Your task to perform on an android device: open app "Speedtest by Ookla" Image 0: 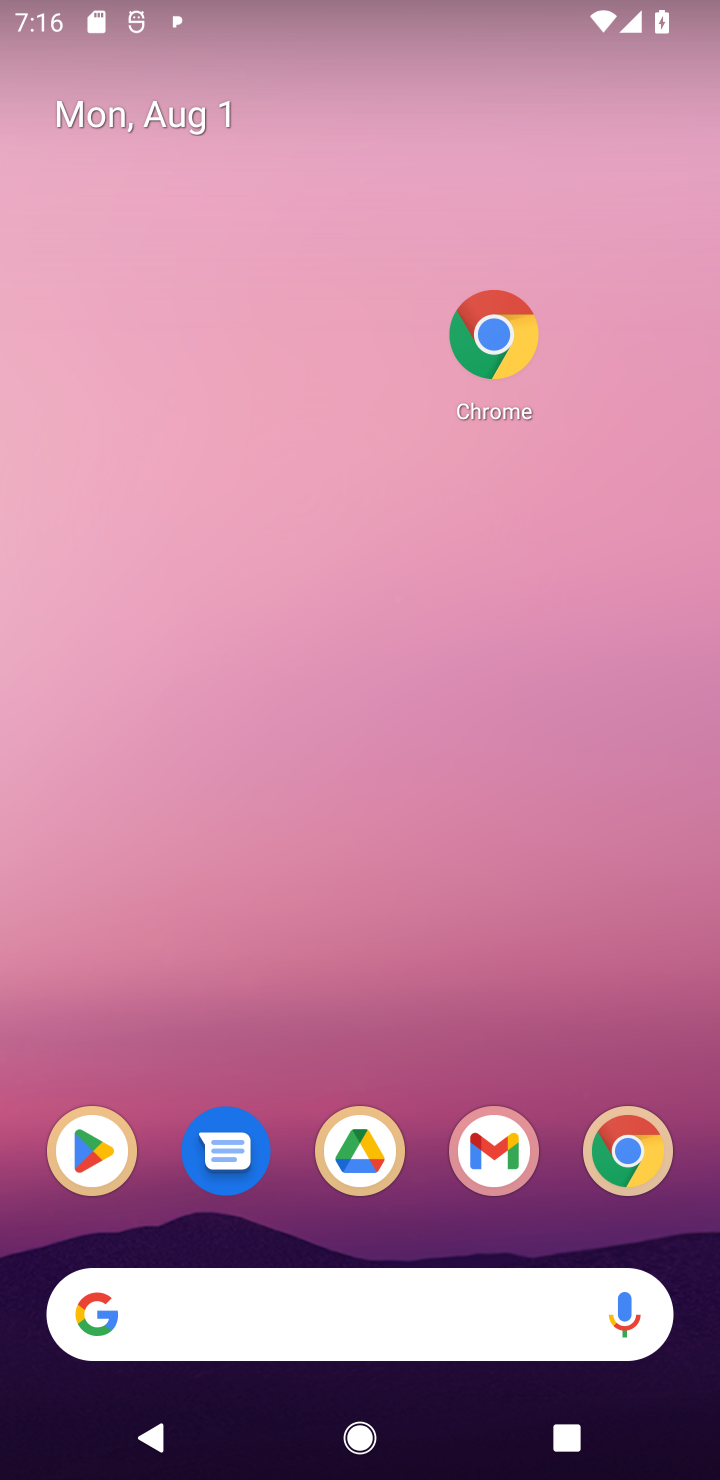
Step 0: click (103, 1166)
Your task to perform on an android device: open app "Speedtest by Ookla" Image 1: 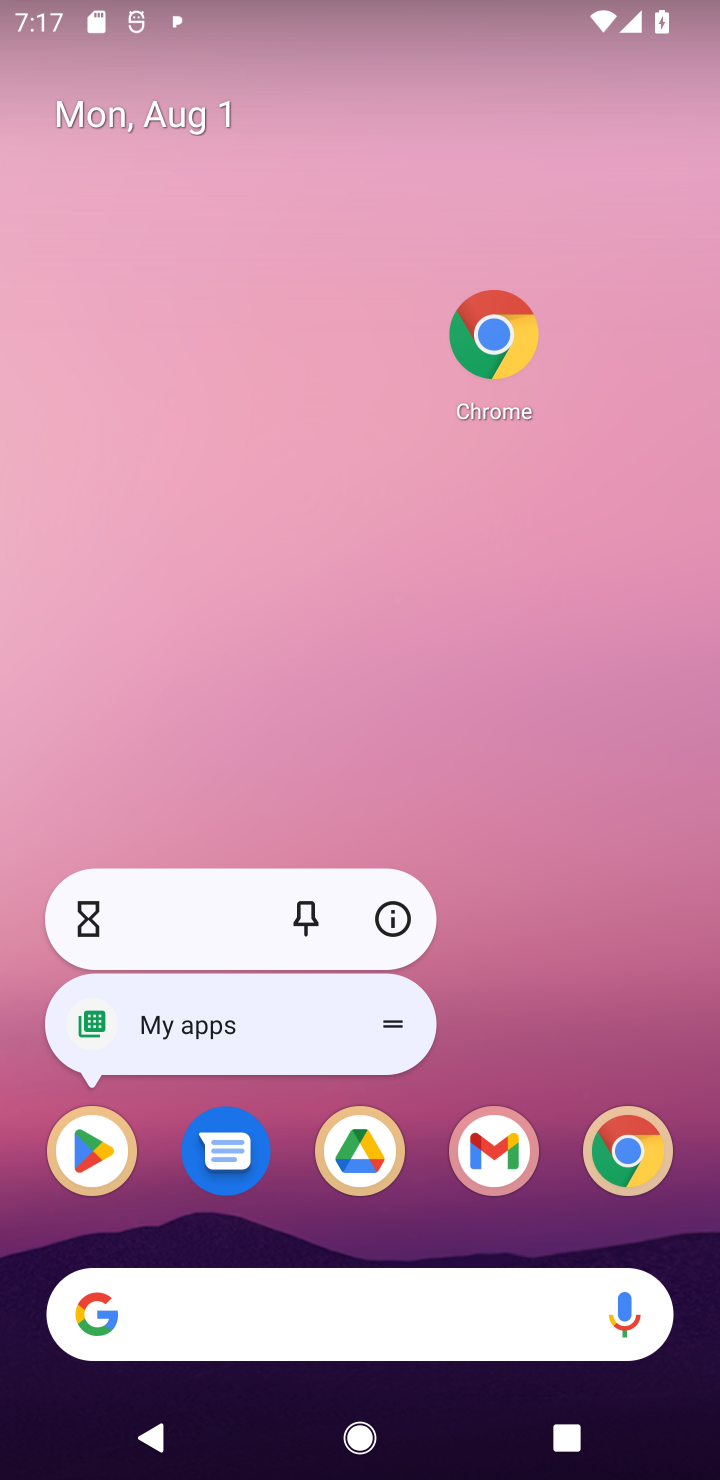
Step 1: click (97, 1161)
Your task to perform on an android device: open app "Speedtest by Ookla" Image 2: 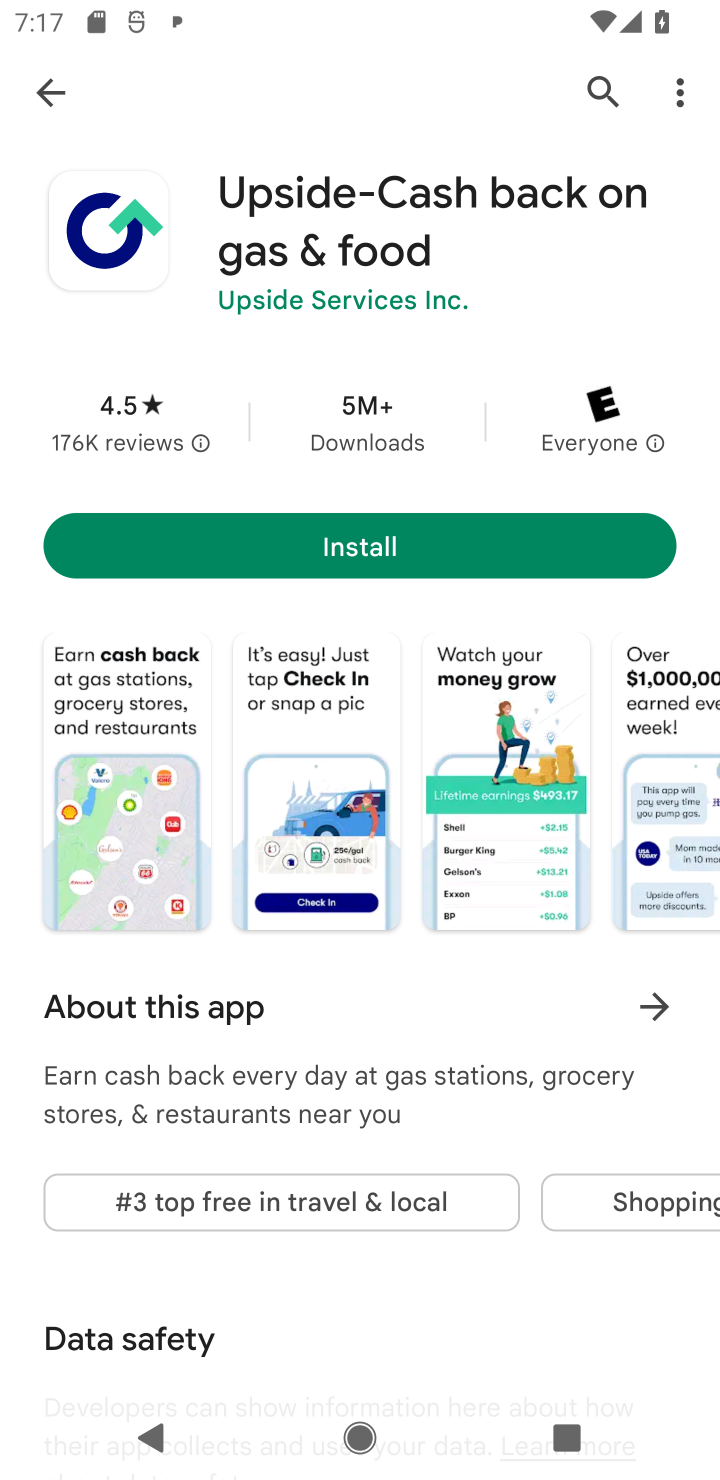
Step 2: click (593, 95)
Your task to perform on an android device: open app "Speedtest by Ookla" Image 3: 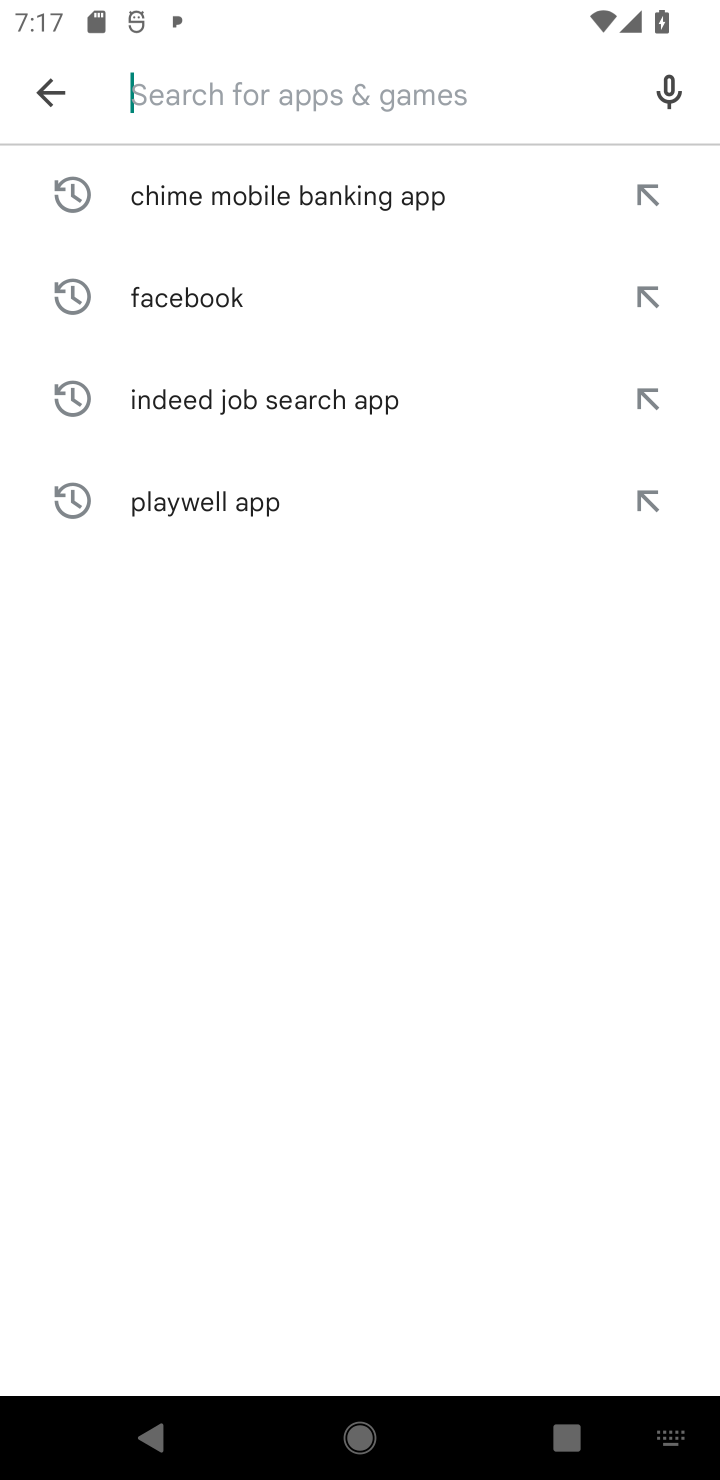
Step 3: click (409, 100)
Your task to perform on an android device: open app "Speedtest by Ookla" Image 4: 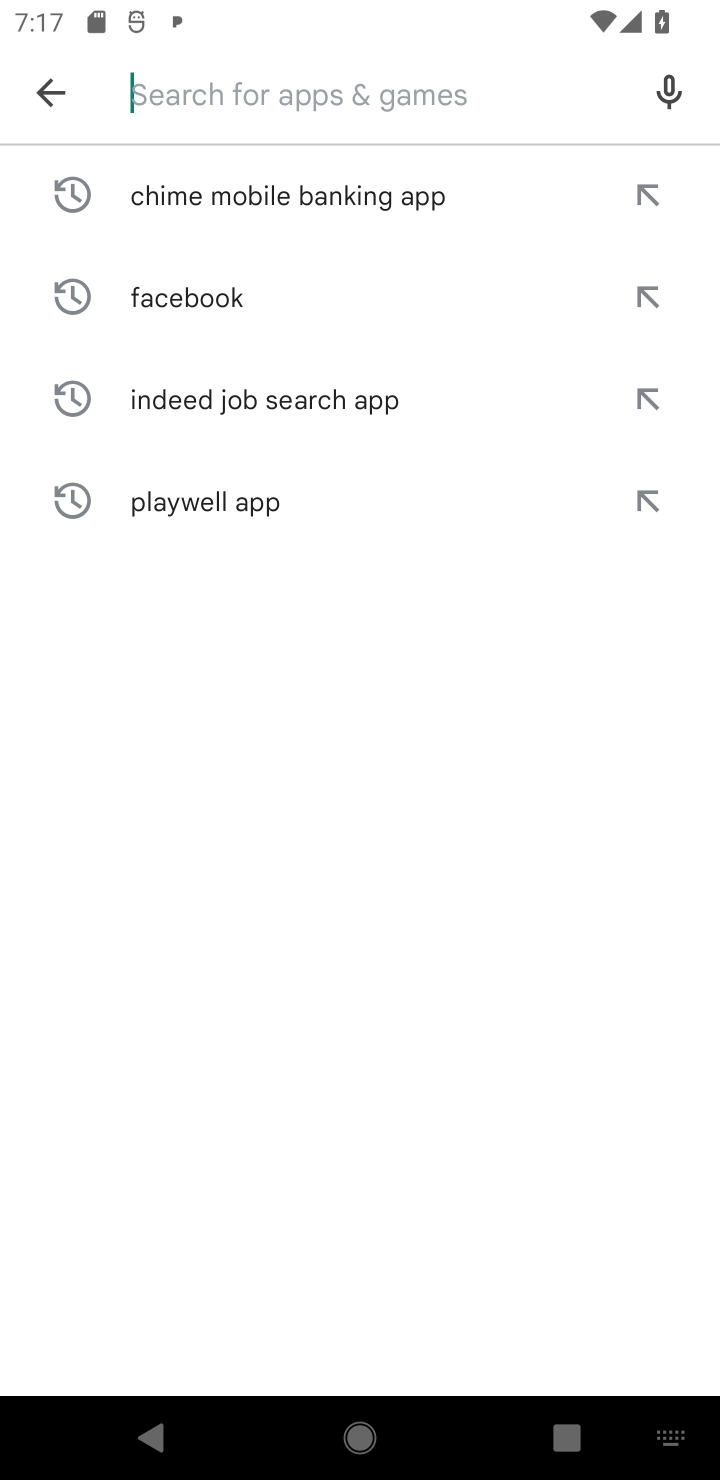
Step 4: type "Speedtest by Ookla"
Your task to perform on an android device: open app "Speedtest by Ookla" Image 5: 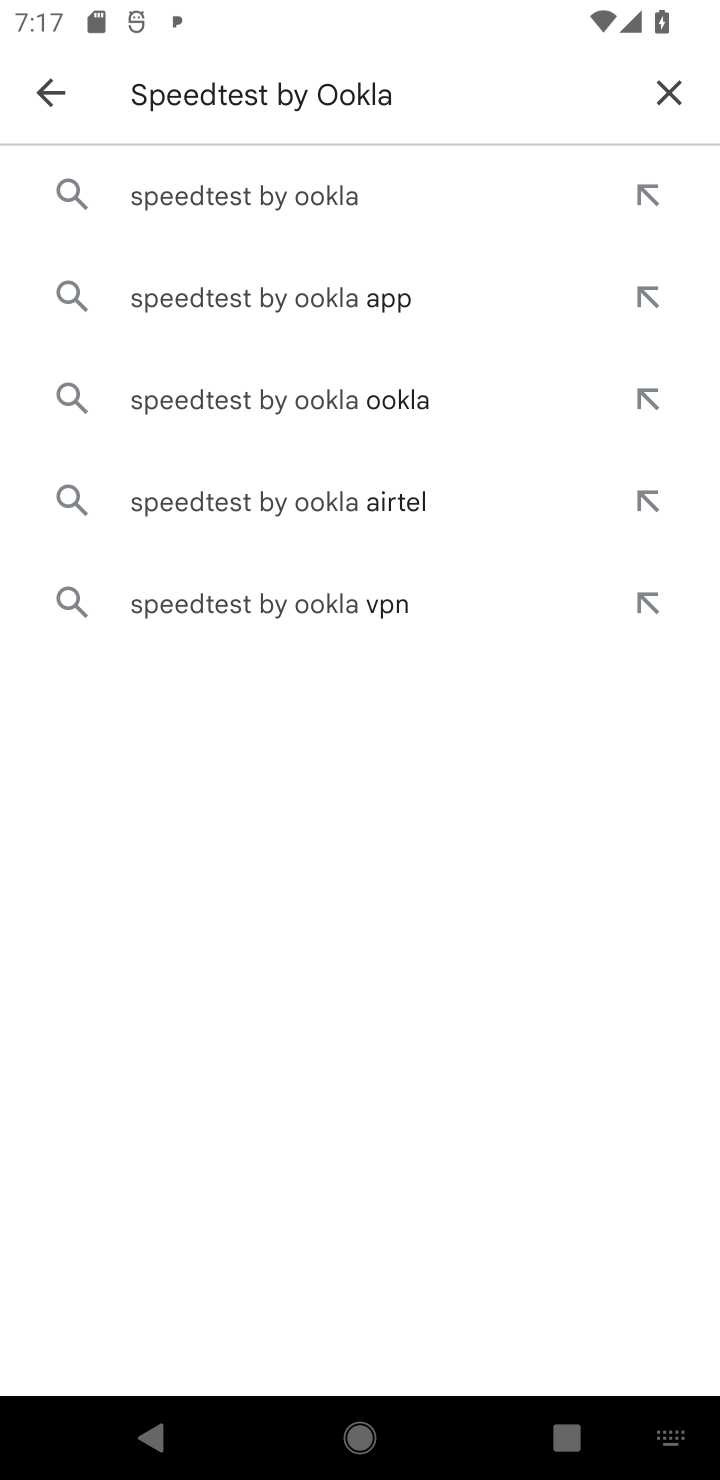
Step 5: click (247, 209)
Your task to perform on an android device: open app "Speedtest by Ookla" Image 6: 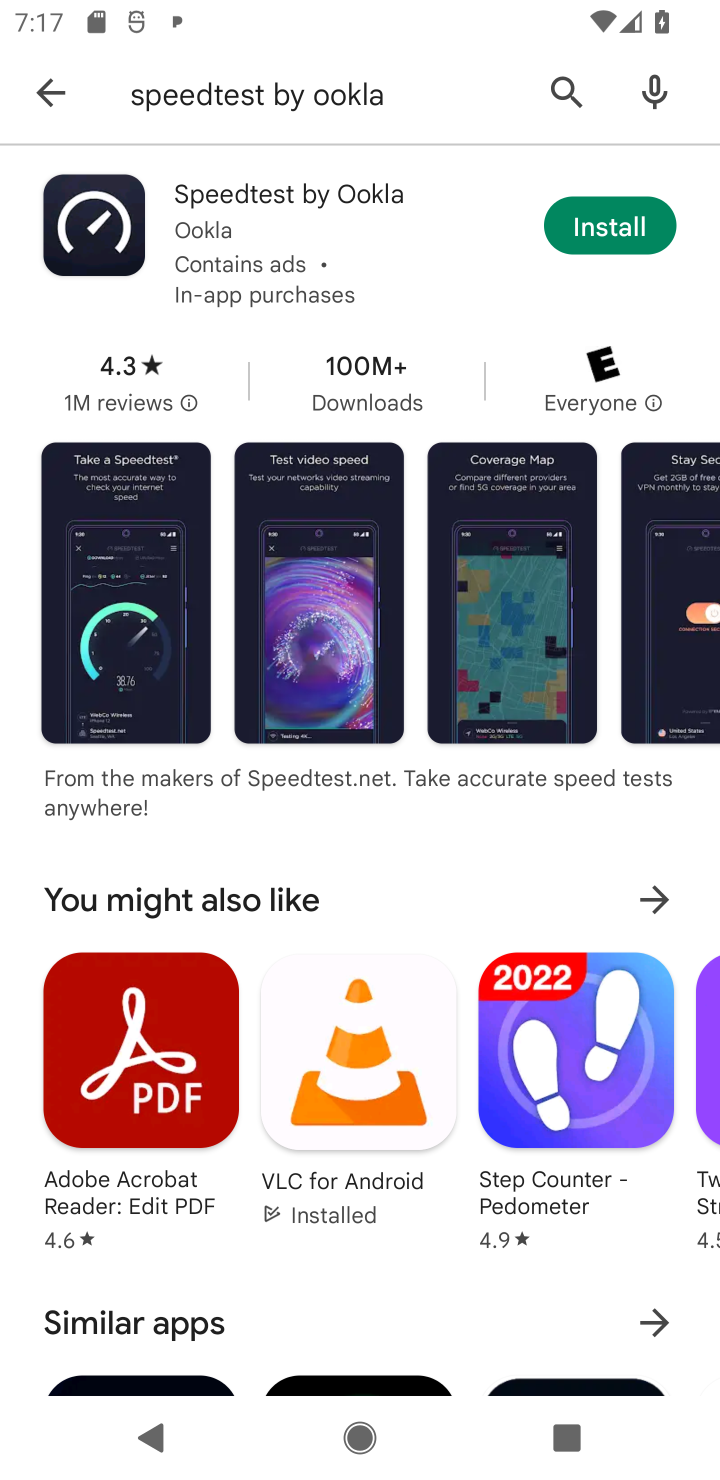
Step 6: task complete